Your task to perform on an android device: Open the calendar and show me this week's events? Image 0: 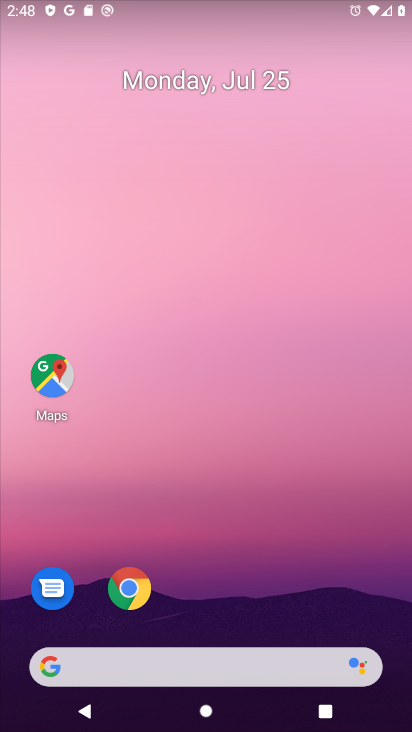
Step 0: drag from (226, 621) to (231, 57)
Your task to perform on an android device: Open the calendar and show me this week's events? Image 1: 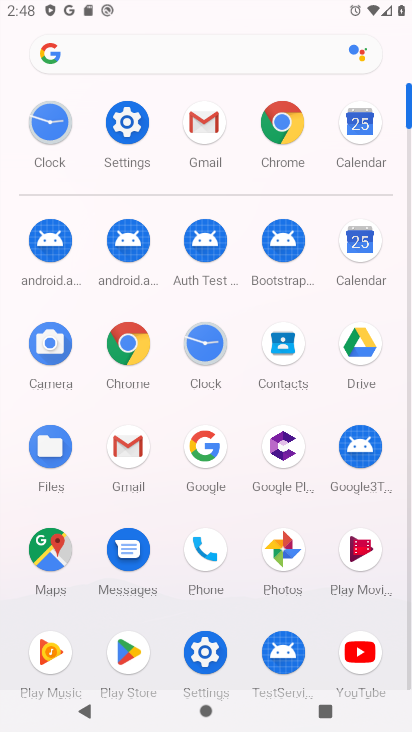
Step 1: click (358, 238)
Your task to perform on an android device: Open the calendar and show me this week's events? Image 2: 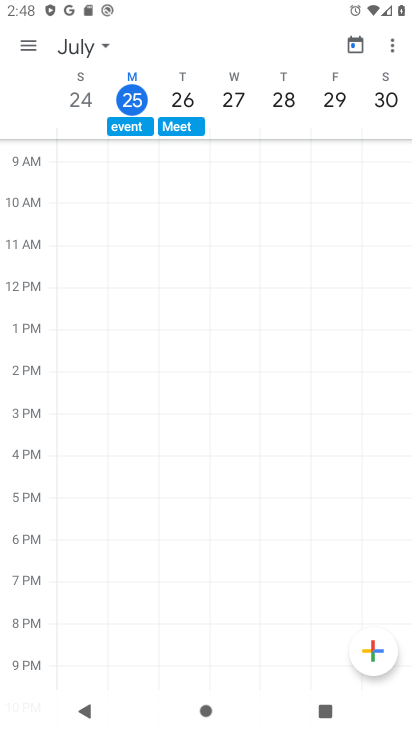
Step 2: task complete